Your task to perform on an android device: Show me popular videos on Youtube Image 0: 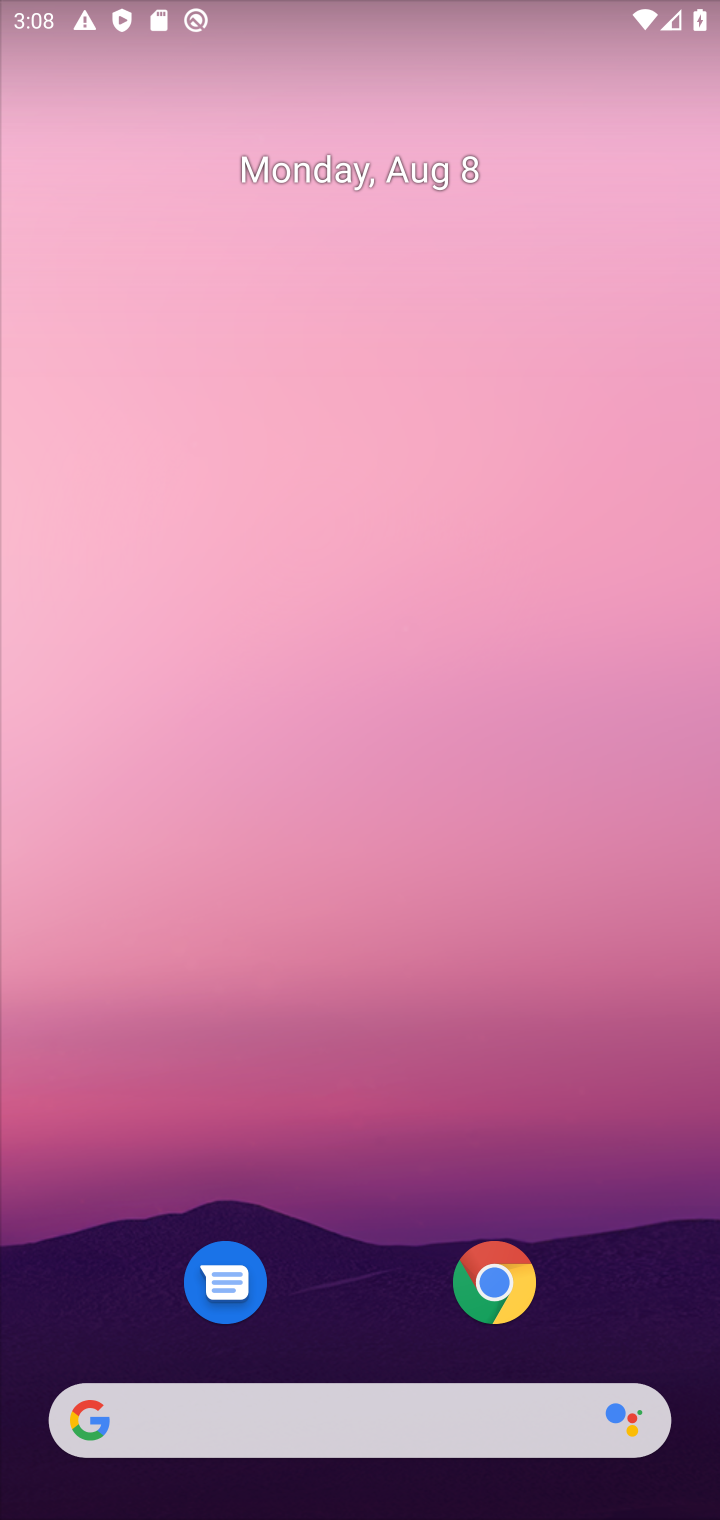
Step 0: drag from (343, 1192) to (585, 58)
Your task to perform on an android device: Show me popular videos on Youtube Image 1: 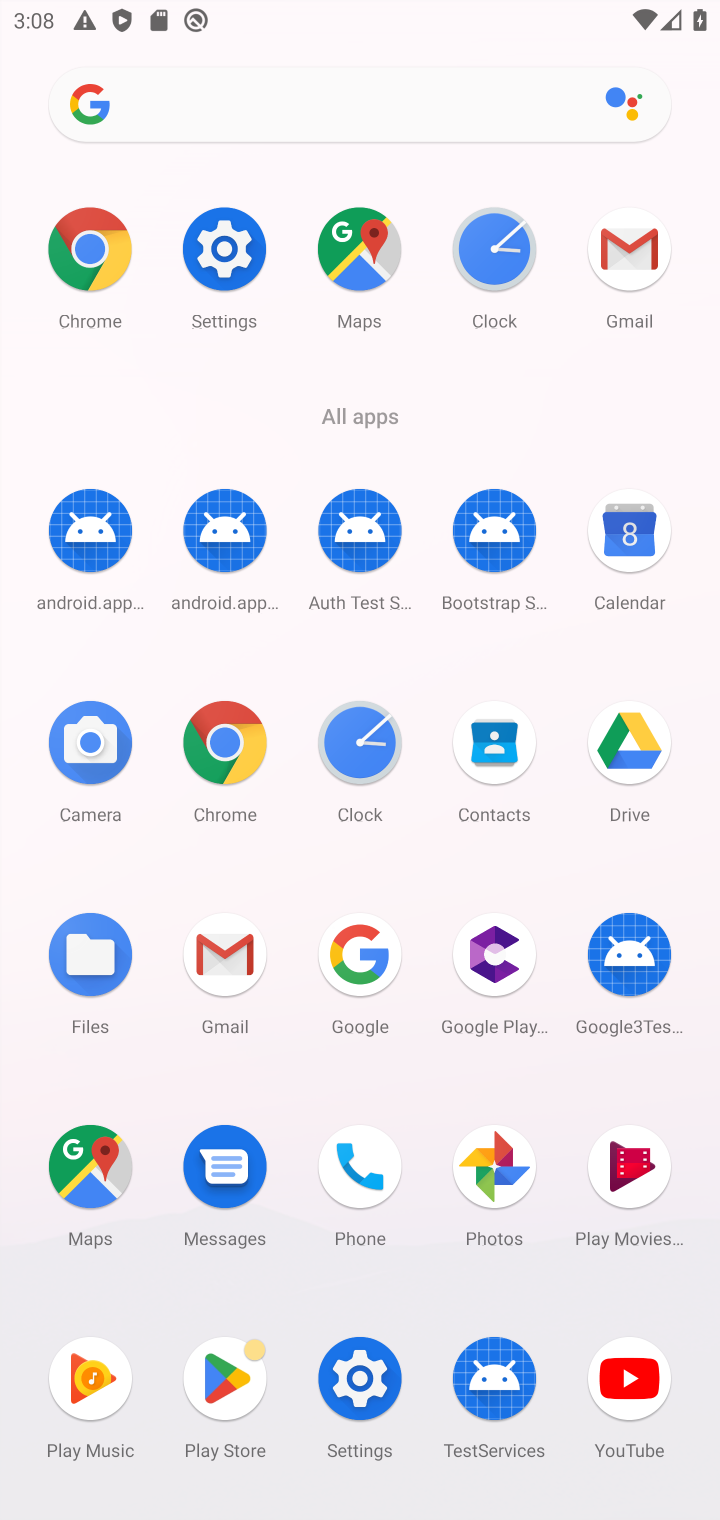
Step 1: click (630, 1375)
Your task to perform on an android device: Show me popular videos on Youtube Image 2: 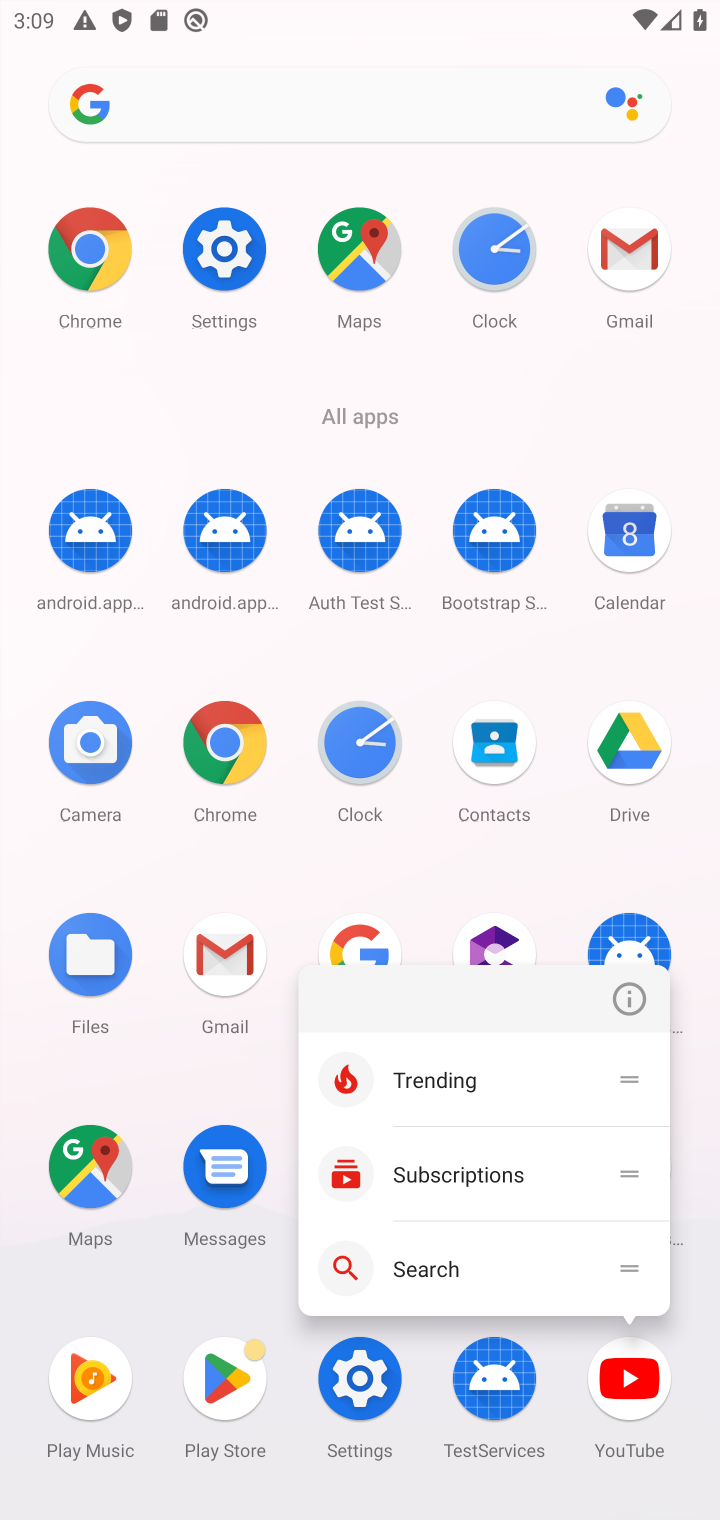
Step 2: click (630, 1387)
Your task to perform on an android device: Show me popular videos on Youtube Image 3: 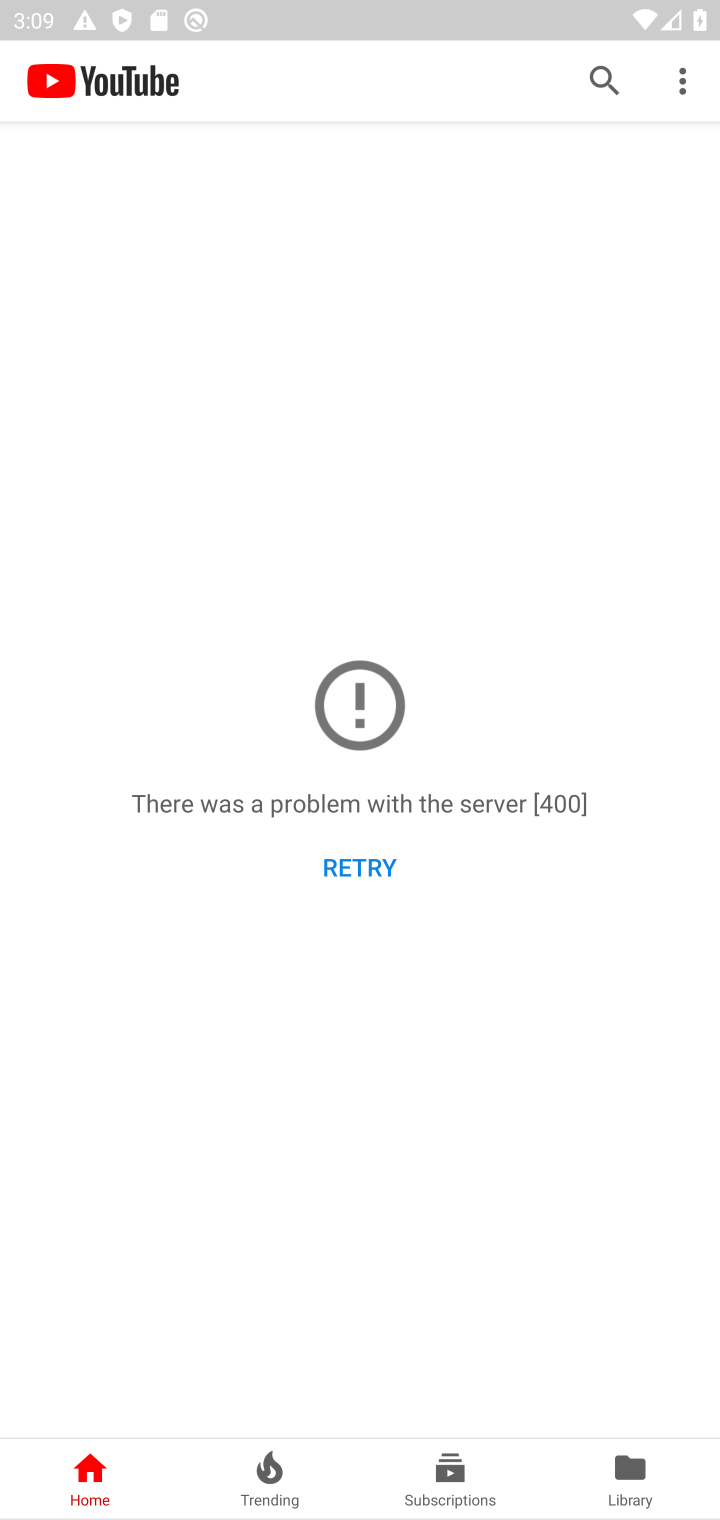
Step 3: task complete